Your task to perform on an android device: turn off data saver in the chrome app Image 0: 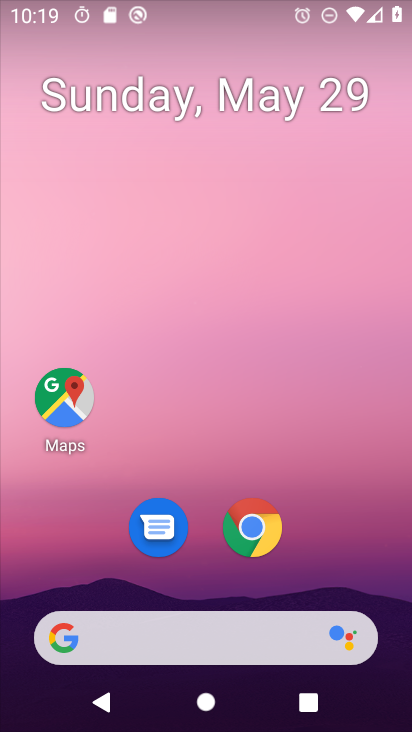
Step 0: drag from (392, 621) to (281, 69)
Your task to perform on an android device: turn off data saver in the chrome app Image 1: 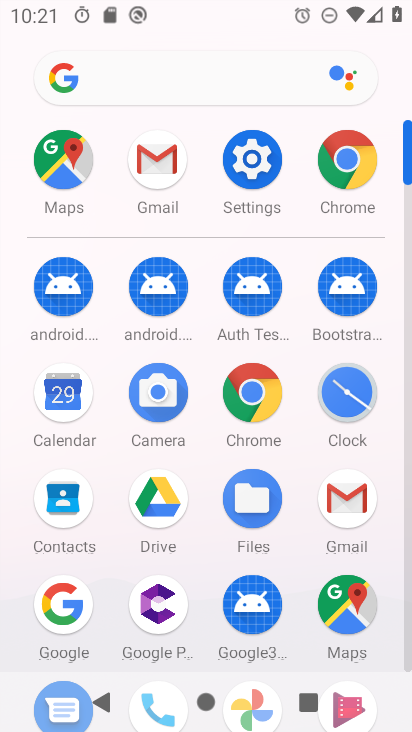
Step 1: click (250, 398)
Your task to perform on an android device: turn off data saver in the chrome app Image 2: 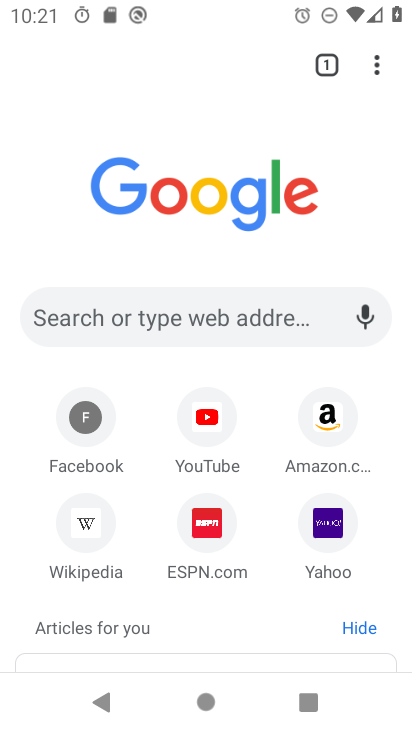
Step 2: click (383, 54)
Your task to perform on an android device: turn off data saver in the chrome app Image 3: 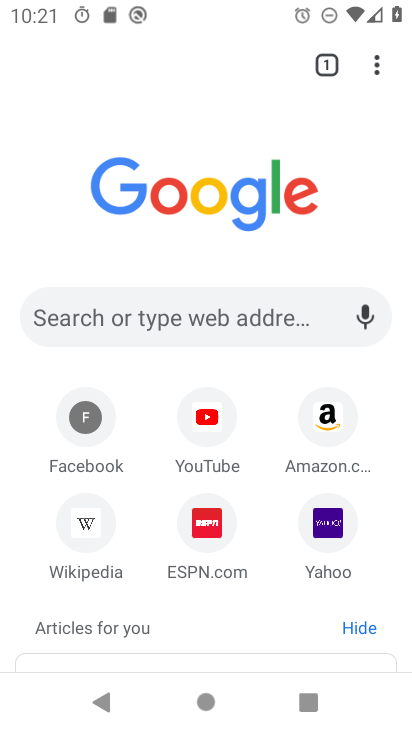
Step 3: click (372, 58)
Your task to perform on an android device: turn off data saver in the chrome app Image 4: 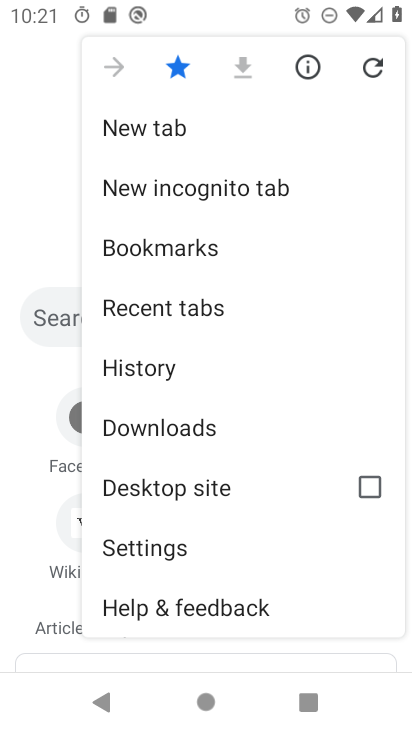
Step 4: click (194, 547)
Your task to perform on an android device: turn off data saver in the chrome app Image 5: 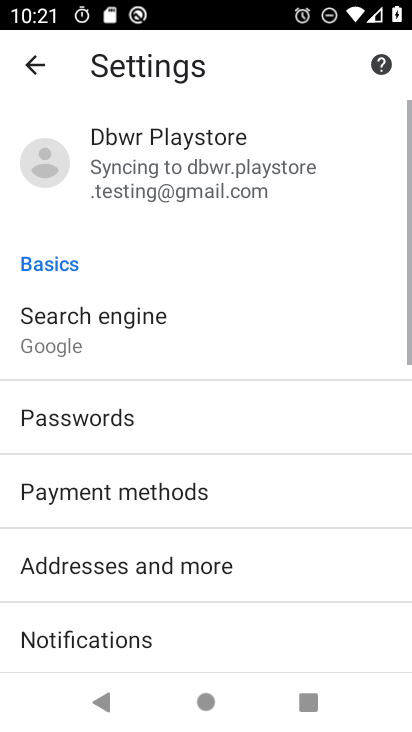
Step 5: drag from (152, 637) to (172, 0)
Your task to perform on an android device: turn off data saver in the chrome app Image 6: 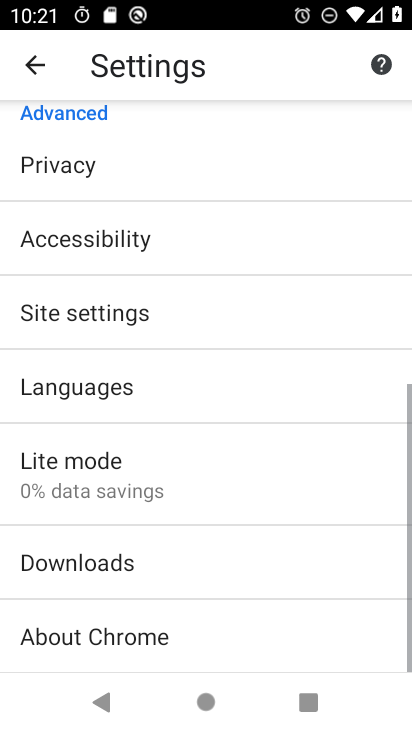
Step 6: click (163, 471)
Your task to perform on an android device: turn off data saver in the chrome app Image 7: 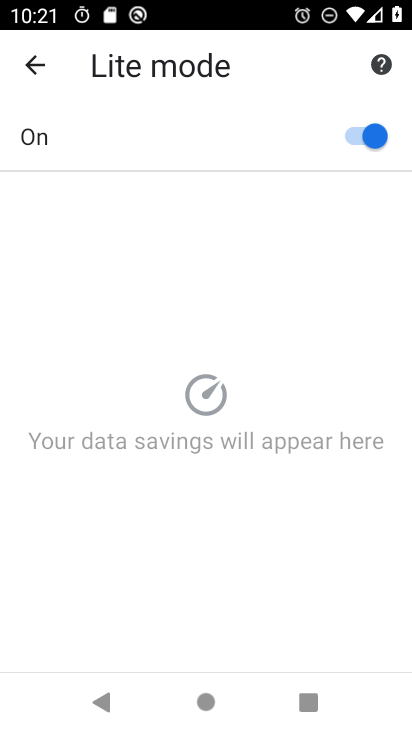
Step 7: click (380, 124)
Your task to perform on an android device: turn off data saver in the chrome app Image 8: 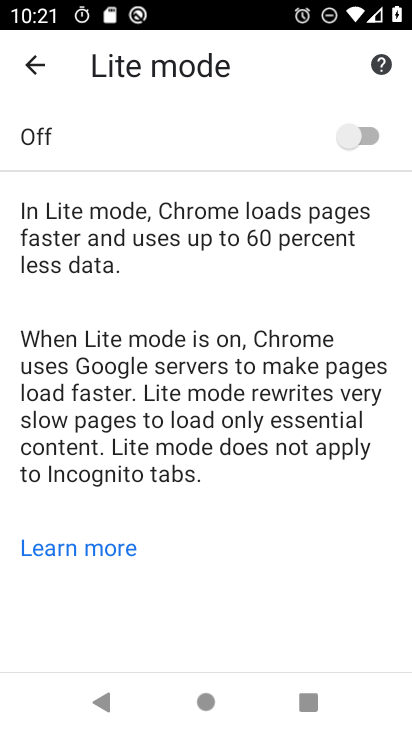
Step 8: task complete